Your task to perform on an android device: Clear all items from cart on amazon. Search for razer kraken on amazon, select the first entry, and add it to the cart. Image 0: 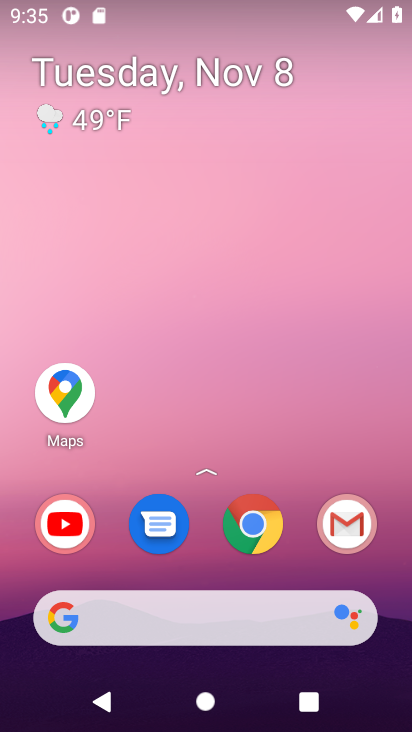
Step 0: click (257, 510)
Your task to perform on an android device: Clear all items from cart on amazon. Search for razer kraken on amazon, select the first entry, and add it to the cart. Image 1: 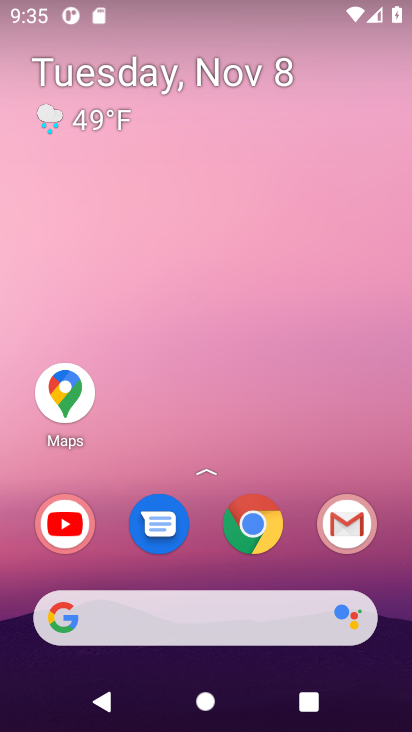
Step 1: click (257, 510)
Your task to perform on an android device: Clear all items from cart on amazon. Search for razer kraken on amazon, select the first entry, and add it to the cart. Image 2: 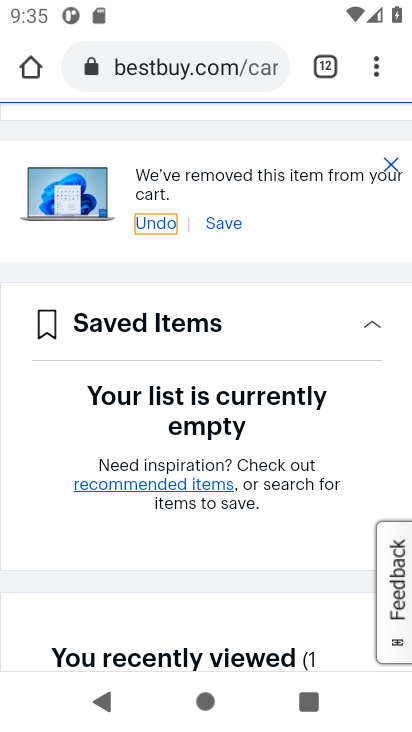
Step 2: click (233, 69)
Your task to perform on an android device: Clear all items from cart on amazon. Search for razer kraken on amazon, select the first entry, and add it to the cart. Image 3: 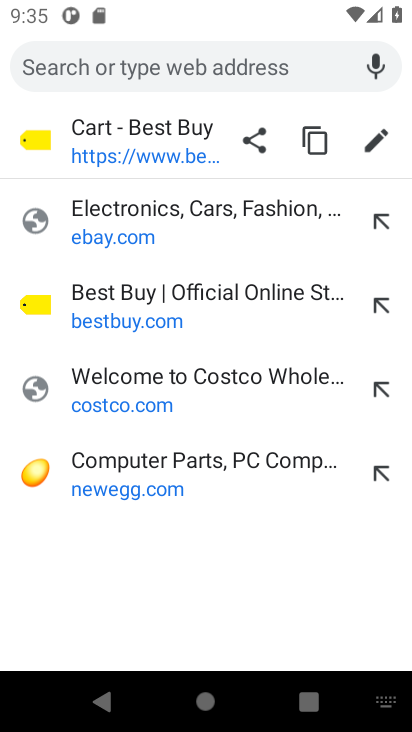
Step 3: type "amazon.com"
Your task to perform on an android device: Clear all items from cart on amazon. Search for razer kraken on amazon, select the first entry, and add it to the cart. Image 4: 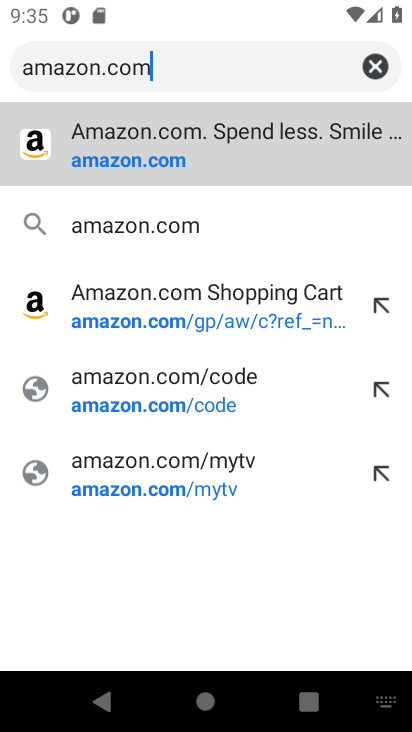
Step 4: click (141, 160)
Your task to perform on an android device: Clear all items from cart on amazon. Search for razer kraken on amazon, select the first entry, and add it to the cart. Image 5: 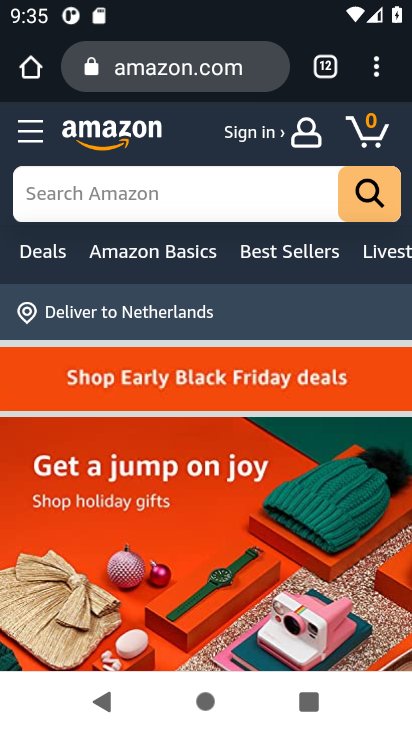
Step 5: click (370, 124)
Your task to perform on an android device: Clear all items from cart on amazon. Search for razer kraken on amazon, select the first entry, and add it to the cart. Image 6: 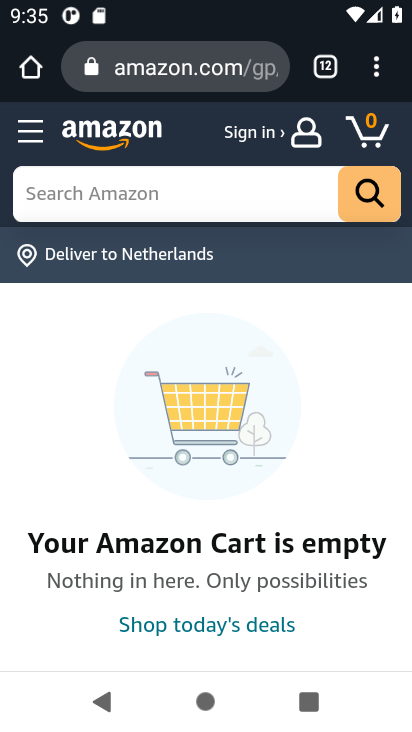
Step 6: drag from (249, 510) to (245, 316)
Your task to perform on an android device: Clear all items from cart on amazon. Search for razer kraken on amazon, select the first entry, and add it to the cart. Image 7: 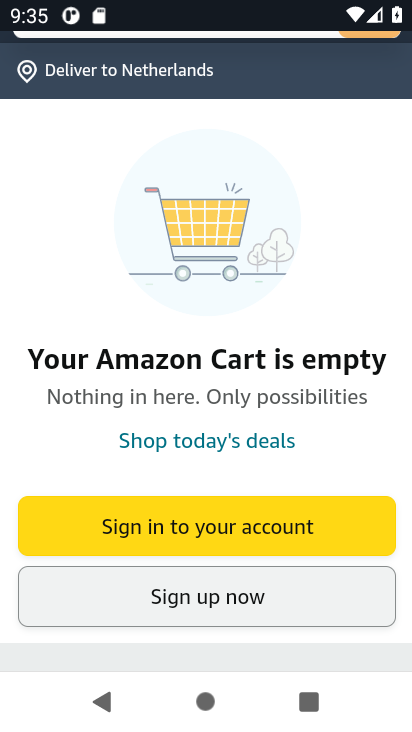
Step 7: drag from (227, 328) to (182, 710)
Your task to perform on an android device: Clear all items from cart on amazon. Search for razer kraken on amazon, select the first entry, and add it to the cart. Image 8: 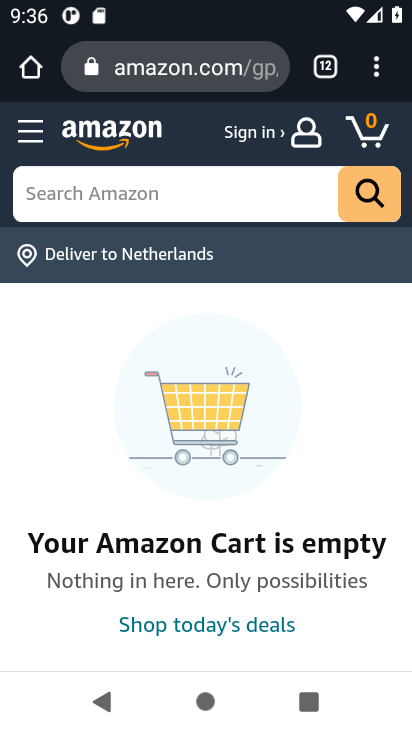
Step 8: click (195, 195)
Your task to perform on an android device: Clear all items from cart on amazon. Search for razer kraken on amazon, select the first entry, and add it to the cart. Image 9: 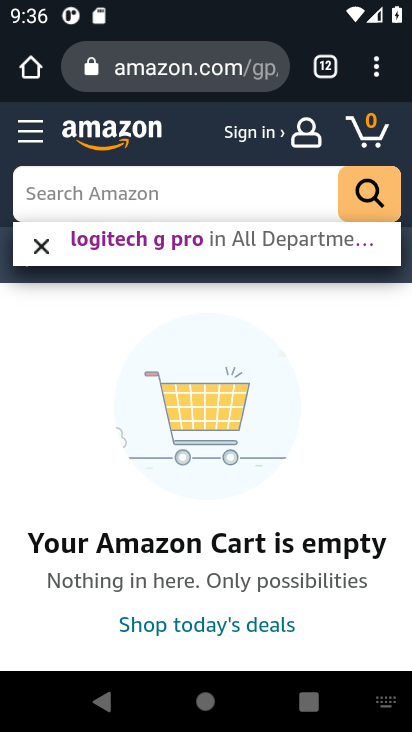
Step 9: type "razer kraken "
Your task to perform on an android device: Clear all items from cart on amazon. Search for razer kraken on amazon, select the first entry, and add it to the cart. Image 10: 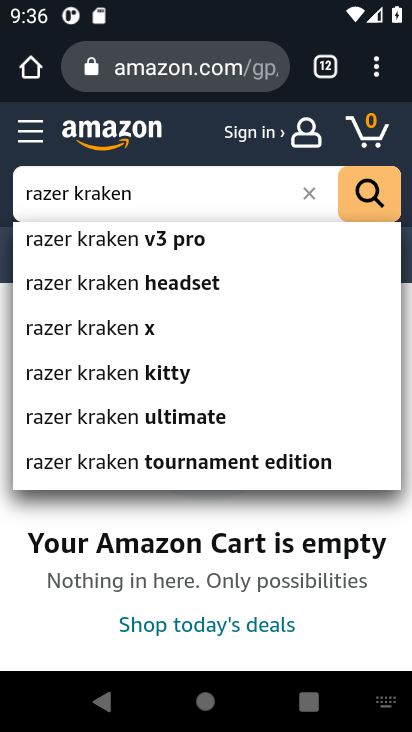
Step 10: click (378, 192)
Your task to perform on an android device: Clear all items from cart on amazon. Search for razer kraken on amazon, select the first entry, and add it to the cart. Image 11: 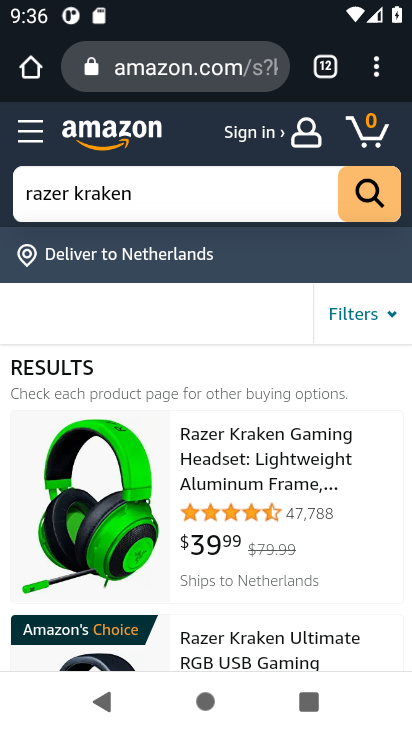
Step 11: click (128, 507)
Your task to perform on an android device: Clear all items from cart on amazon. Search for razer kraken on amazon, select the first entry, and add it to the cart. Image 12: 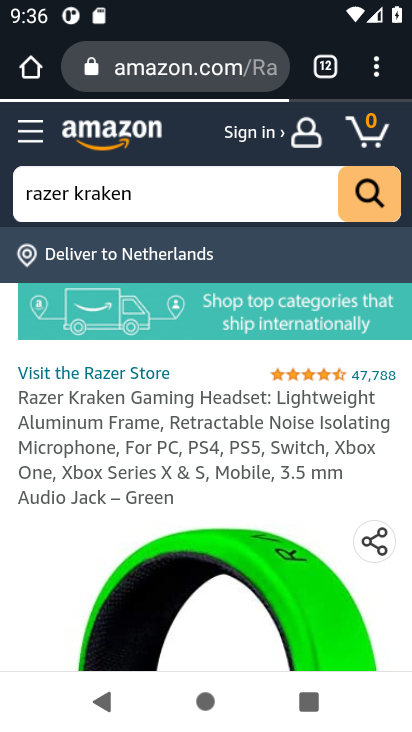
Step 12: drag from (217, 605) to (212, 152)
Your task to perform on an android device: Clear all items from cart on amazon. Search for razer kraken on amazon, select the first entry, and add it to the cart. Image 13: 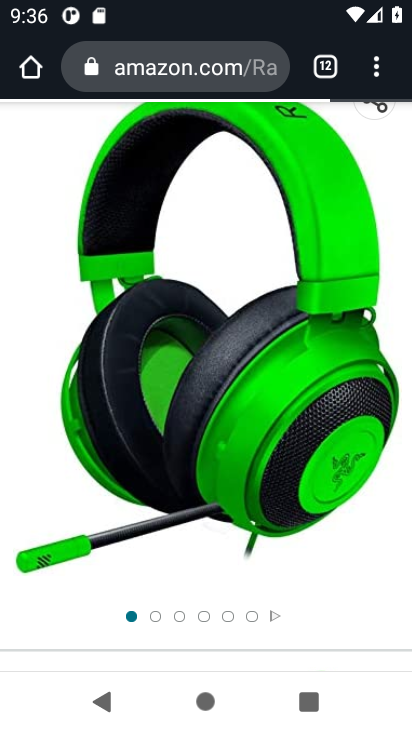
Step 13: drag from (207, 451) to (179, 144)
Your task to perform on an android device: Clear all items from cart on amazon. Search for razer kraken on amazon, select the first entry, and add it to the cart. Image 14: 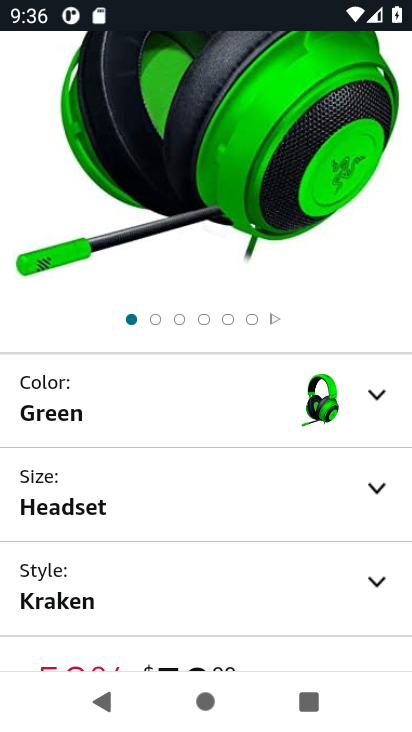
Step 14: drag from (206, 491) to (188, 112)
Your task to perform on an android device: Clear all items from cart on amazon. Search for razer kraken on amazon, select the first entry, and add it to the cart. Image 15: 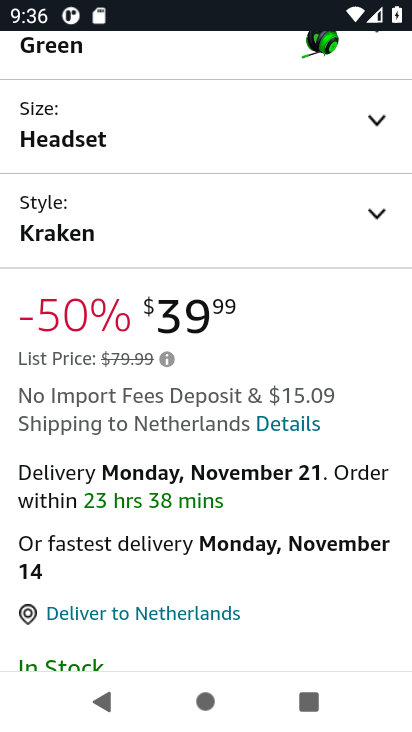
Step 15: drag from (203, 483) to (187, 154)
Your task to perform on an android device: Clear all items from cart on amazon. Search for razer kraken on amazon, select the first entry, and add it to the cart. Image 16: 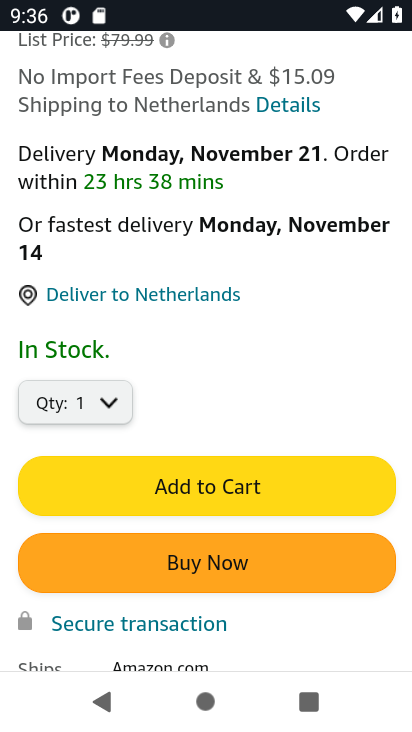
Step 16: click (233, 493)
Your task to perform on an android device: Clear all items from cart on amazon. Search for razer kraken on amazon, select the first entry, and add it to the cart. Image 17: 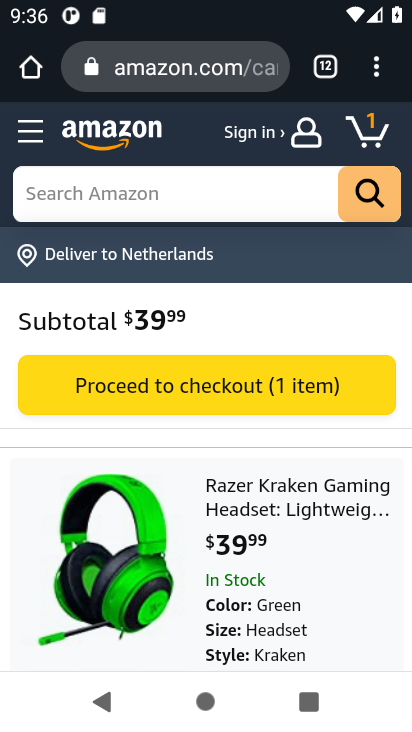
Step 17: task complete